Your task to perform on an android device: What's on my calendar today? Image 0: 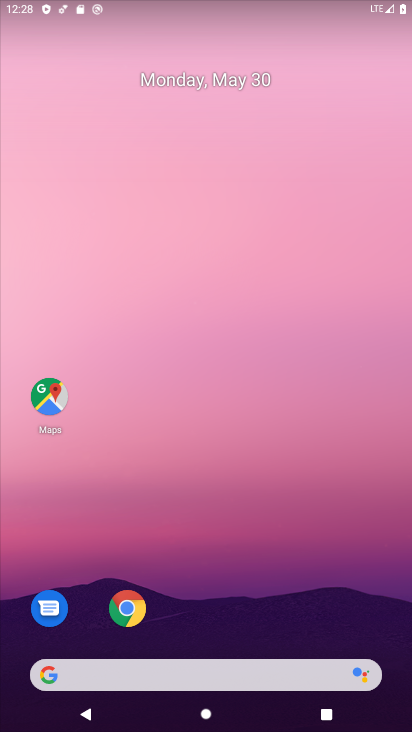
Step 0: drag from (195, 600) to (199, 262)
Your task to perform on an android device: What's on my calendar today? Image 1: 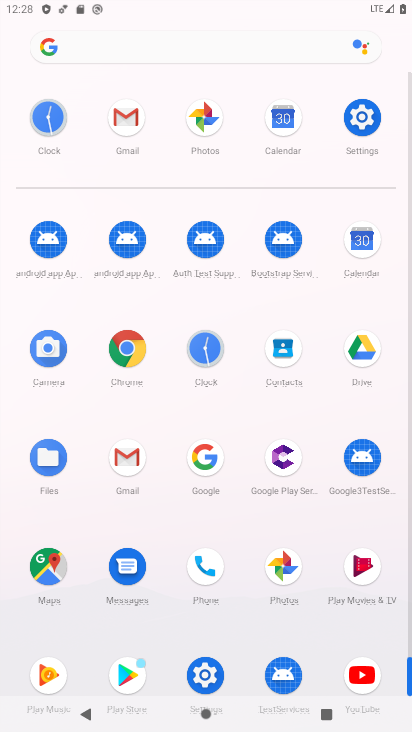
Step 1: click (369, 242)
Your task to perform on an android device: What's on my calendar today? Image 2: 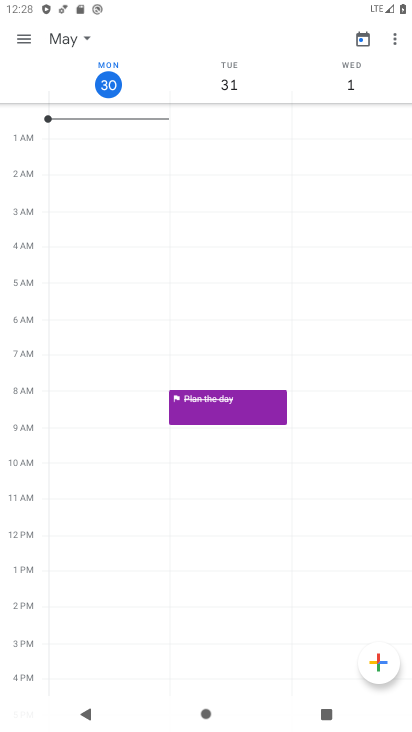
Step 2: click (20, 35)
Your task to perform on an android device: What's on my calendar today? Image 3: 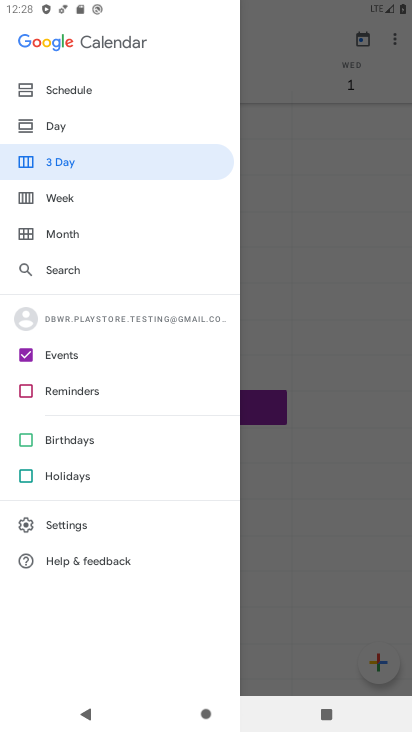
Step 3: click (80, 123)
Your task to perform on an android device: What's on my calendar today? Image 4: 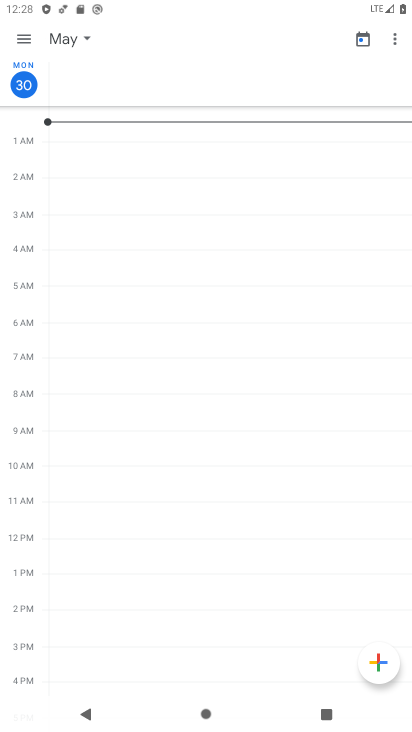
Step 4: task complete